Your task to perform on an android device: toggle javascript in the chrome app Image 0: 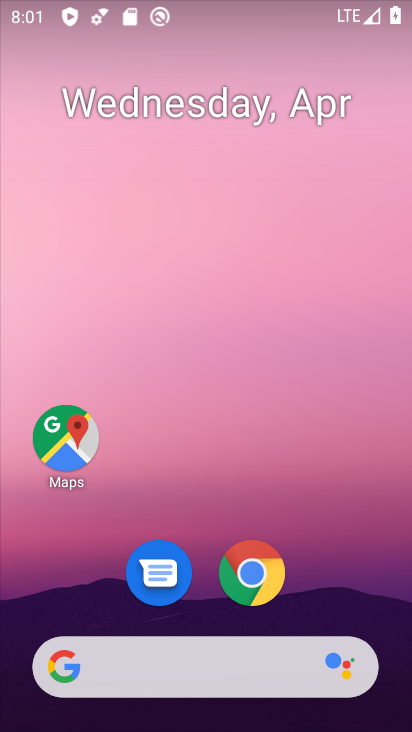
Step 0: click (266, 574)
Your task to perform on an android device: toggle javascript in the chrome app Image 1: 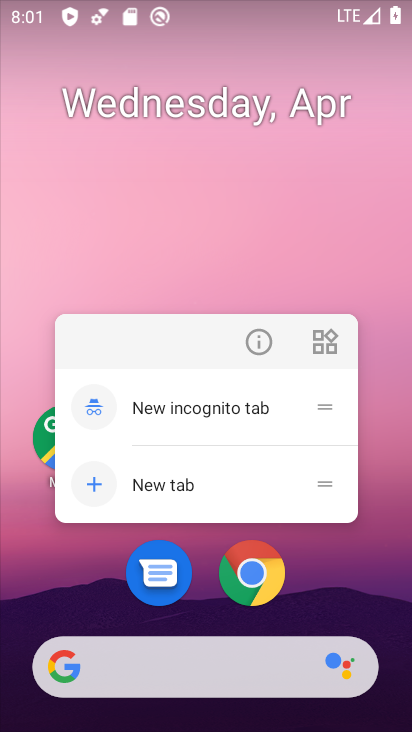
Step 1: click (248, 579)
Your task to perform on an android device: toggle javascript in the chrome app Image 2: 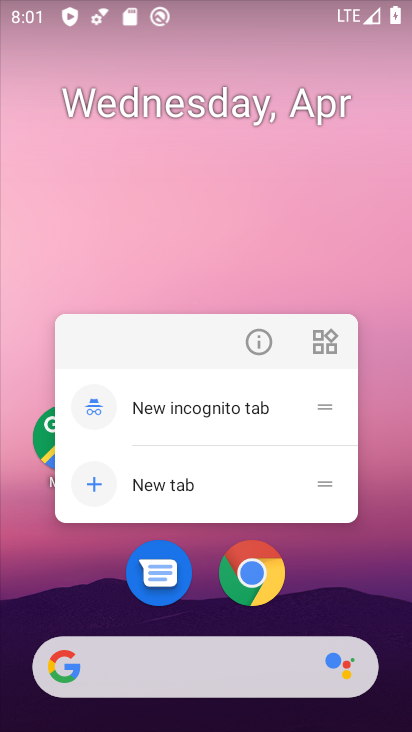
Step 2: click (267, 346)
Your task to perform on an android device: toggle javascript in the chrome app Image 3: 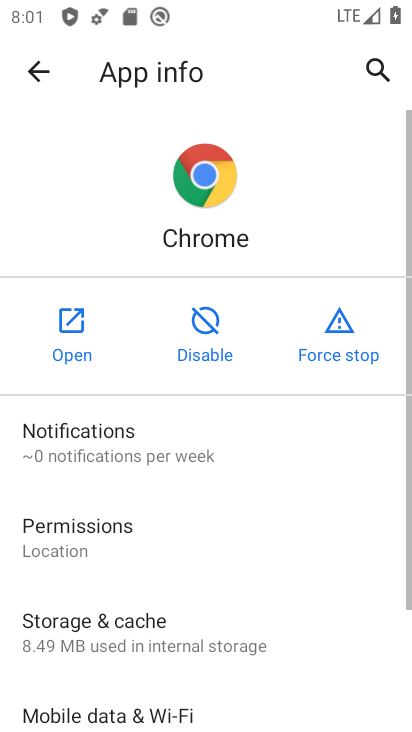
Step 3: click (74, 315)
Your task to perform on an android device: toggle javascript in the chrome app Image 4: 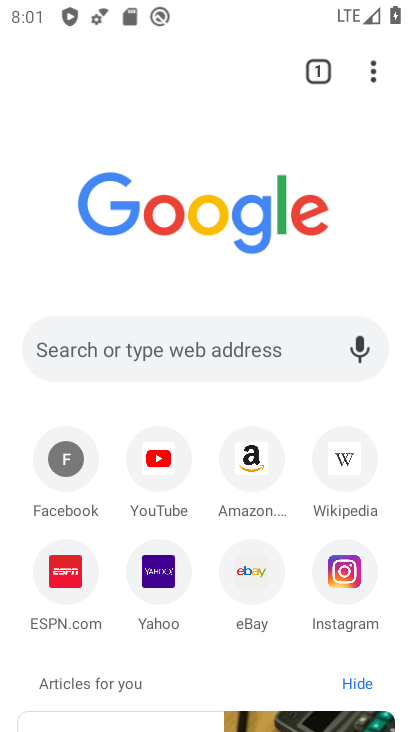
Step 4: click (371, 77)
Your task to perform on an android device: toggle javascript in the chrome app Image 5: 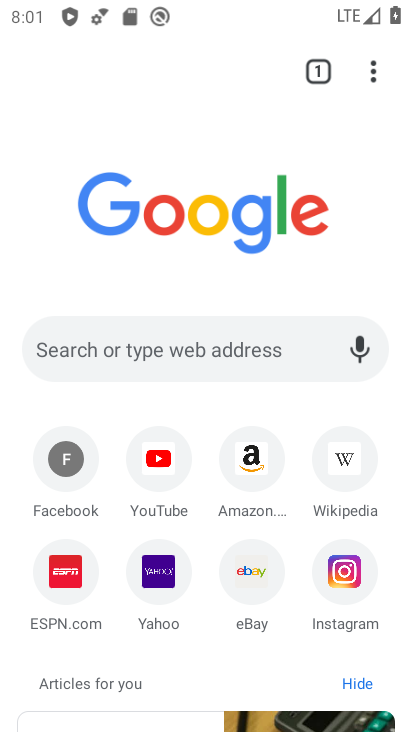
Step 5: click (375, 70)
Your task to perform on an android device: toggle javascript in the chrome app Image 6: 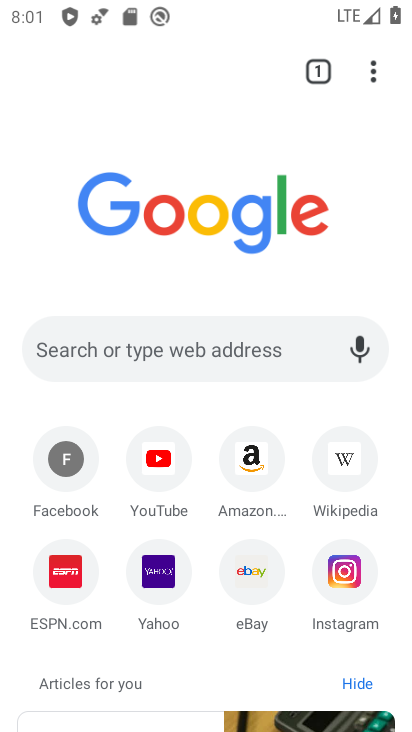
Step 6: click (375, 70)
Your task to perform on an android device: toggle javascript in the chrome app Image 7: 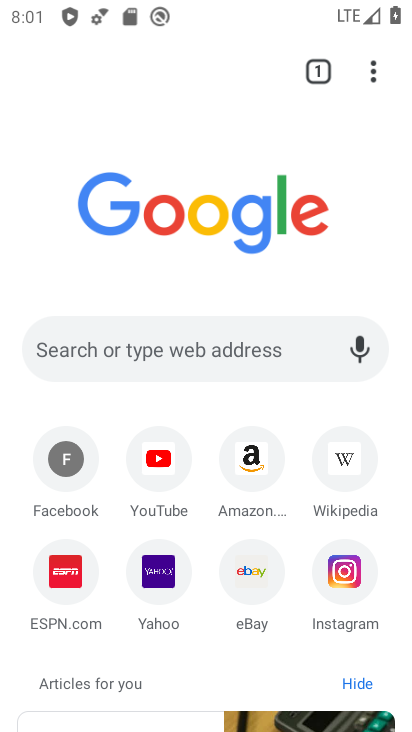
Step 7: click (370, 74)
Your task to perform on an android device: toggle javascript in the chrome app Image 8: 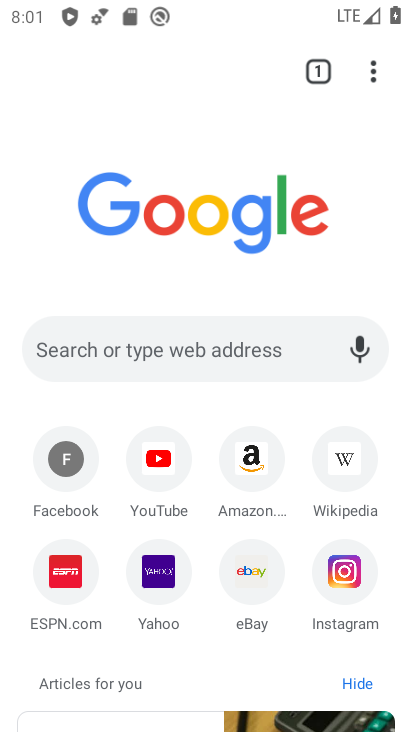
Step 8: click (374, 72)
Your task to perform on an android device: toggle javascript in the chrome app Image 9: 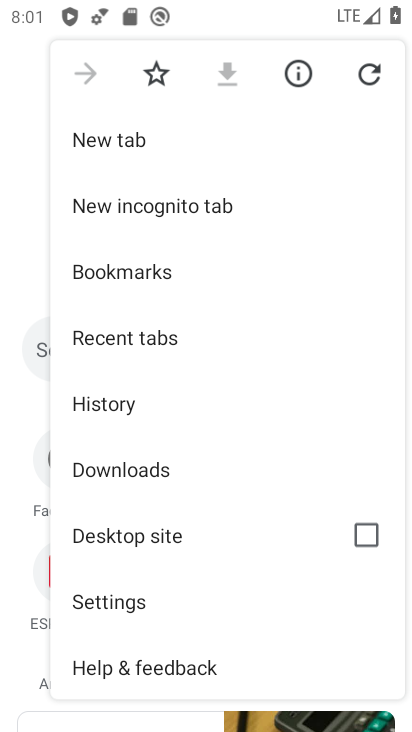
Step 9: click (193, 590)
Your task to perform on an android device: toggle javascript in the chrome app Image 10: 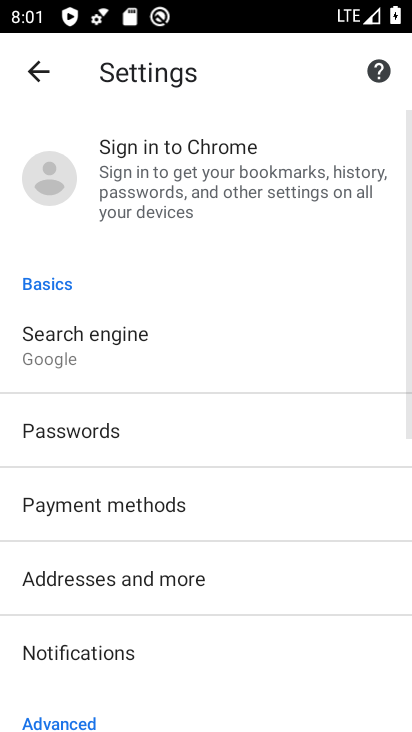
Step 10: drag from (170, 672) to (227, 320)
Your task to perform on an android device: toggle javascript in the chrome app Image 11: 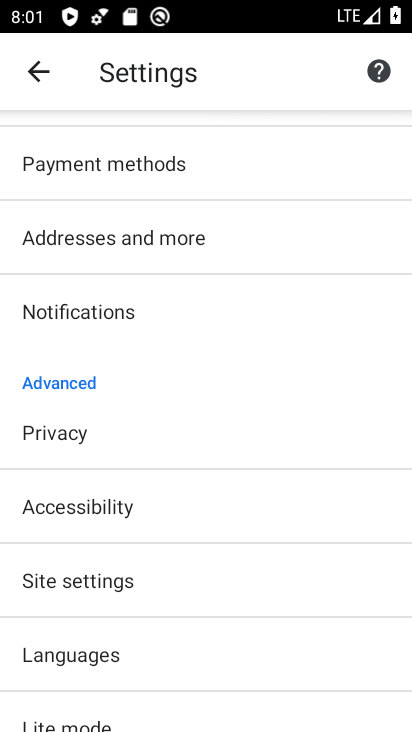
Step 11: drag from (180, 650) to (246, 339)
Your task to perform on an android device: toggle javascript in the chrome app Image 12: 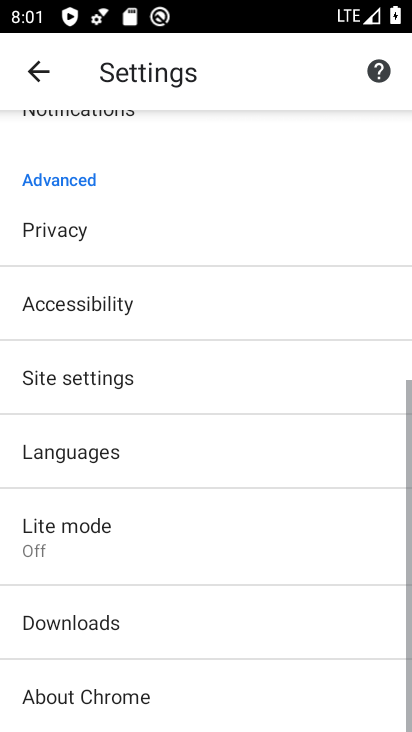
Step 12: click (106, 381)
Your task to perform on an android device: toggle javascript in the chrome app Image 13: 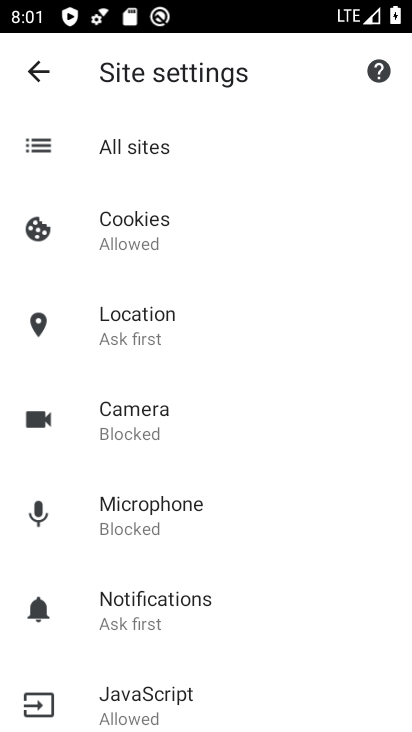
Step 13: click (159, 683)
Your task to perform on an android device: toggle javascript in the chrome app Image 14: 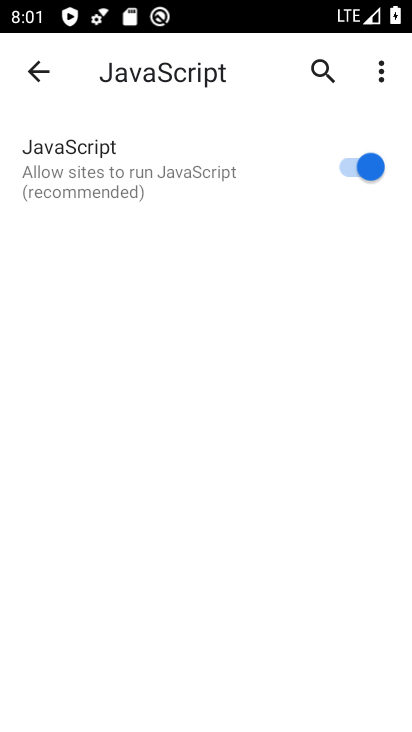
Step 14: click (382, 165)
Your task to perform on an android device: toggle javascript in the chrome app Image 15: 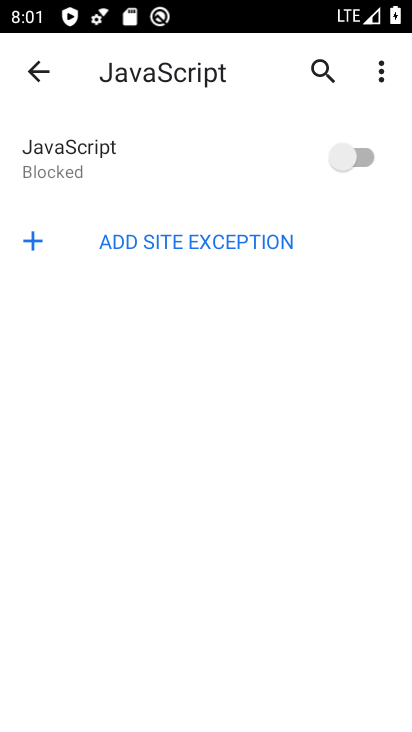
Step 15: task complete